Your task to perform on an android device: Open location settings Image 0: 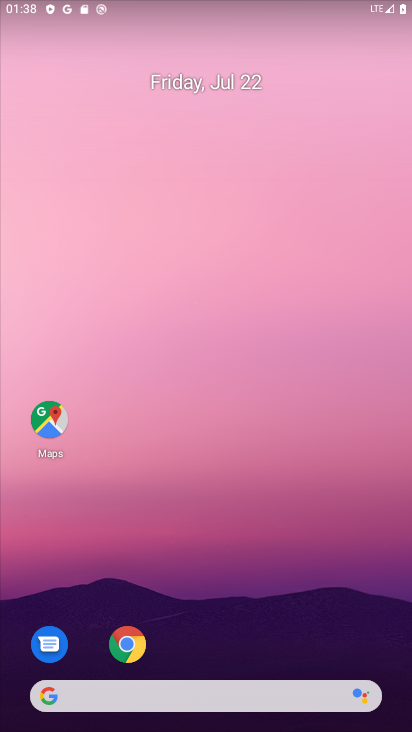
Step 0: drag from (146, 678) to (174, 71)
Your task to perform on an android device: Open location settings Image 1: 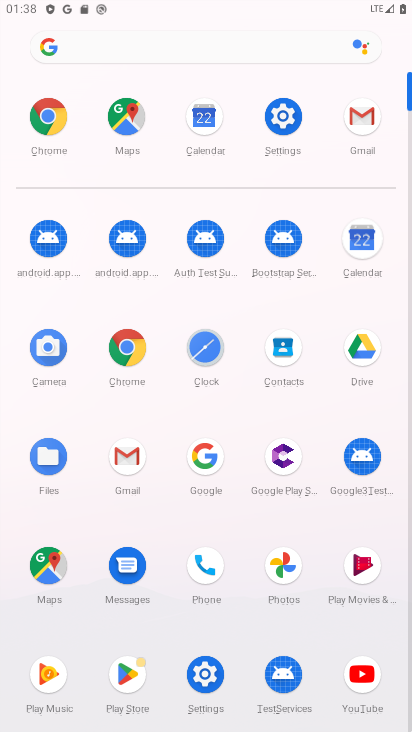
Step 1: click (274, 112)
Your task to perform on an android device: Open location settings Image 2: 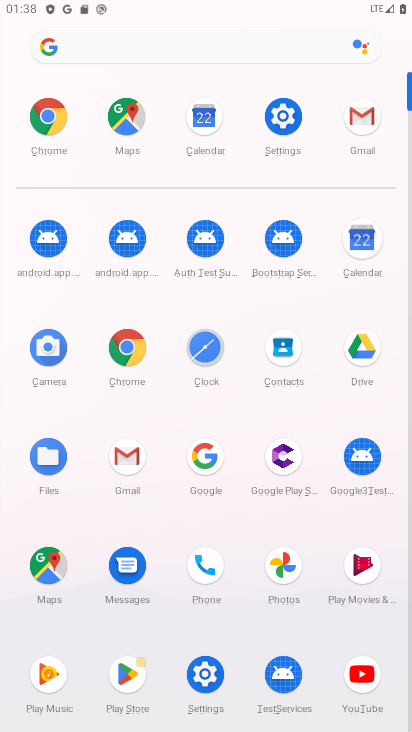
Step 2: click (274, 112)
Your task to perform on an android device: Open location settings Image 3: 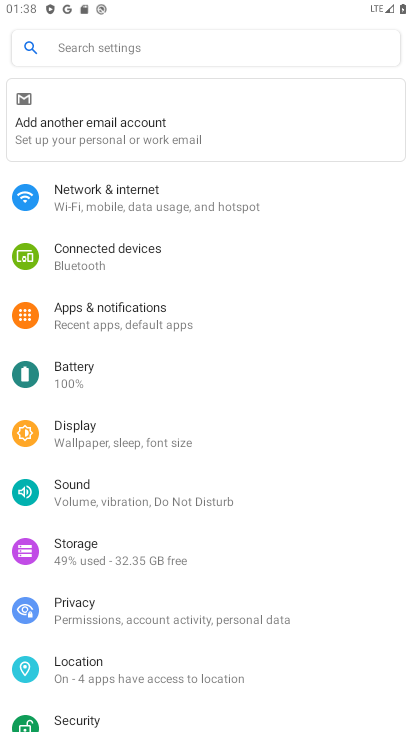
Step 3: click (140, 667)
Your task to perform on an android device: Open location settings Image 4: 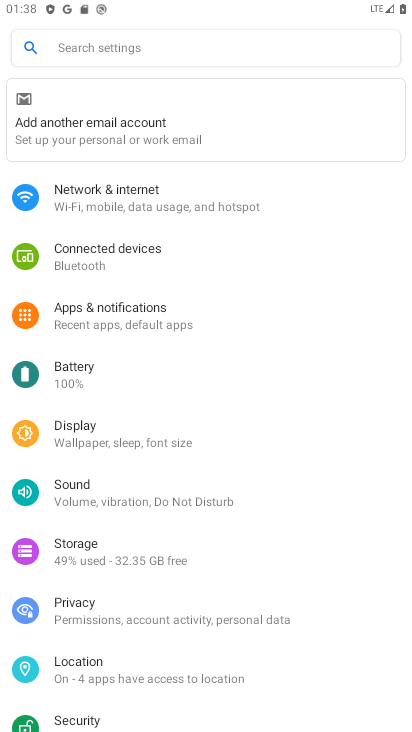
Step 4: click (140, 667)
Your task to perform on an android device: Open location settings Image 5: 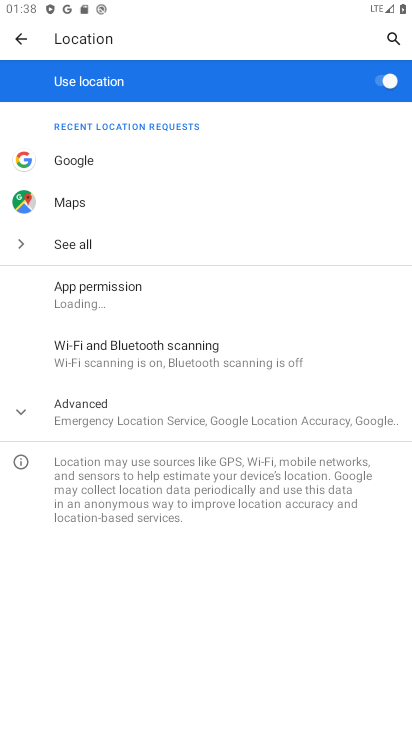
Step 5: task complete